Your task to perform on an android device: uninstall "Roku - Official Remote Control" Image 0: 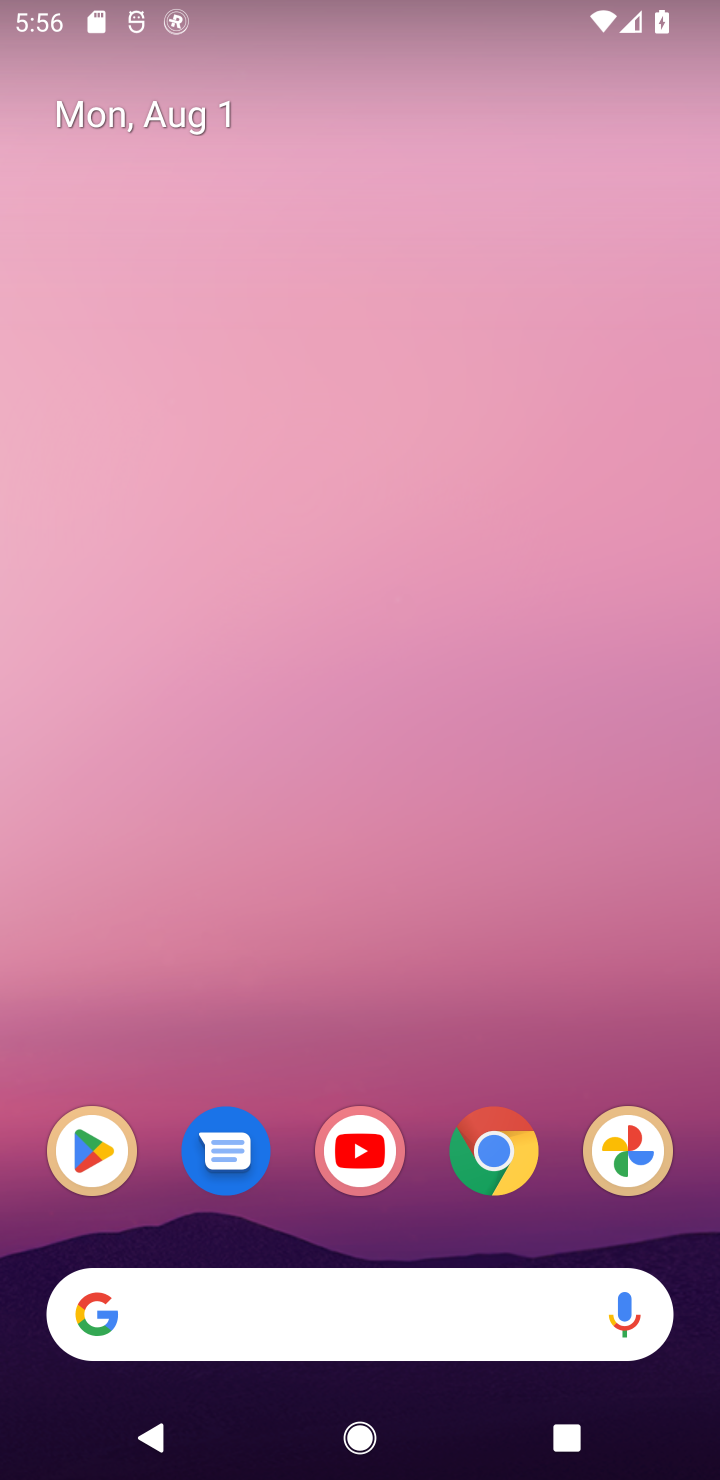
Step 0: click (115, 1179)
Your task to perform on an android device: uninstall "Roku - Official Remote Control" Image 1: 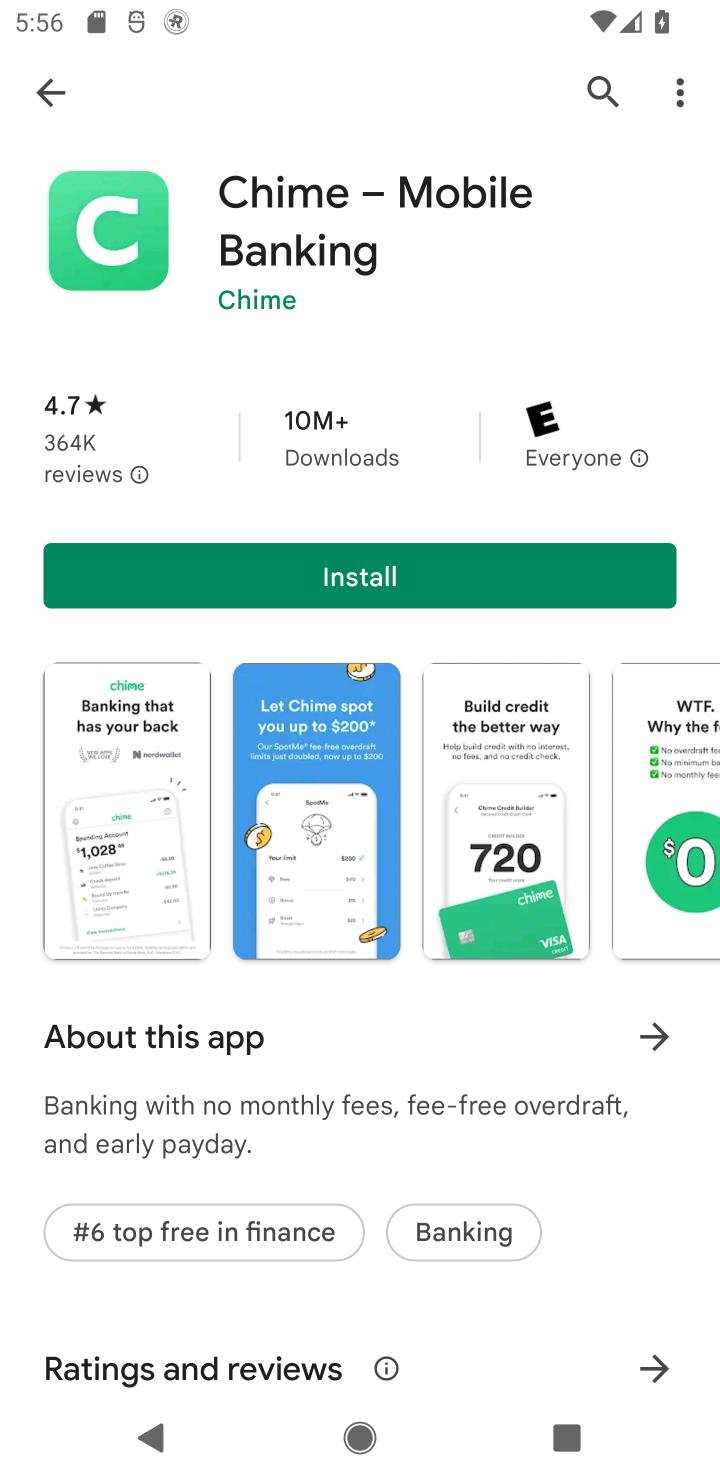
Step 1: click (594, 88)
Your task to perform on an android device: uninstall "Roku - Official Remote Control" Image 2: 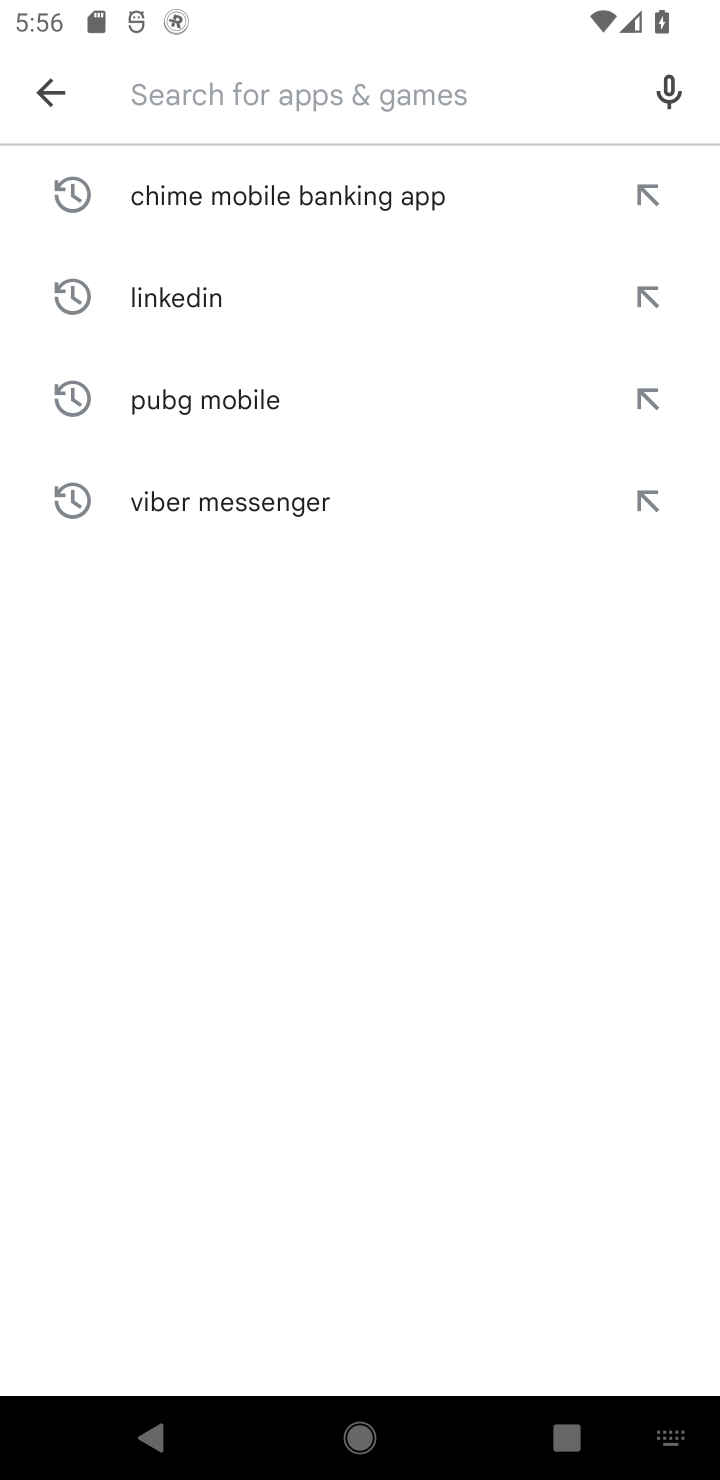
Step 2: type "Roku - Official Remote Control"
Your task to perform on an android device: uninstall "Roku - Official Remote Control" Image 3: 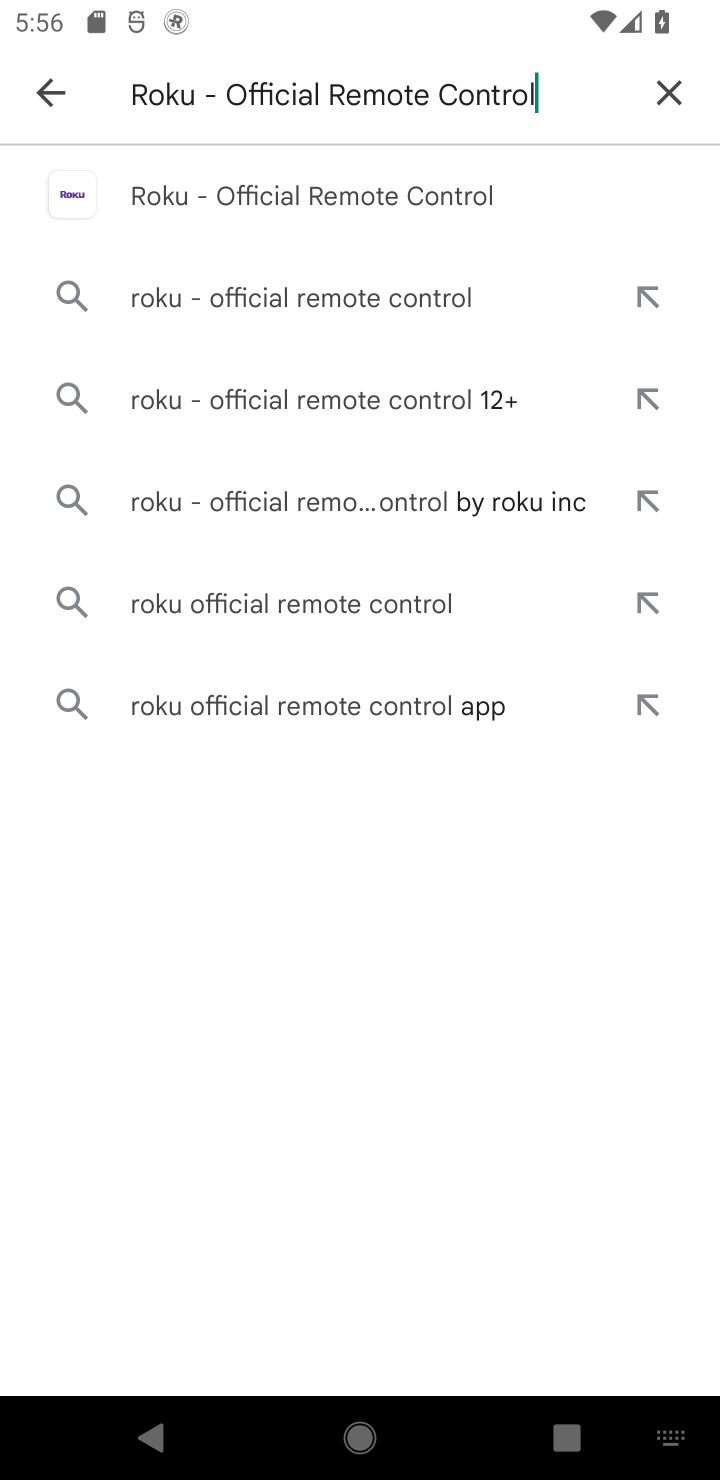
Step 3: click (243, 188)
Your task to perform on an android device: uninstall "Roku - Official Remote Control" Image 4: 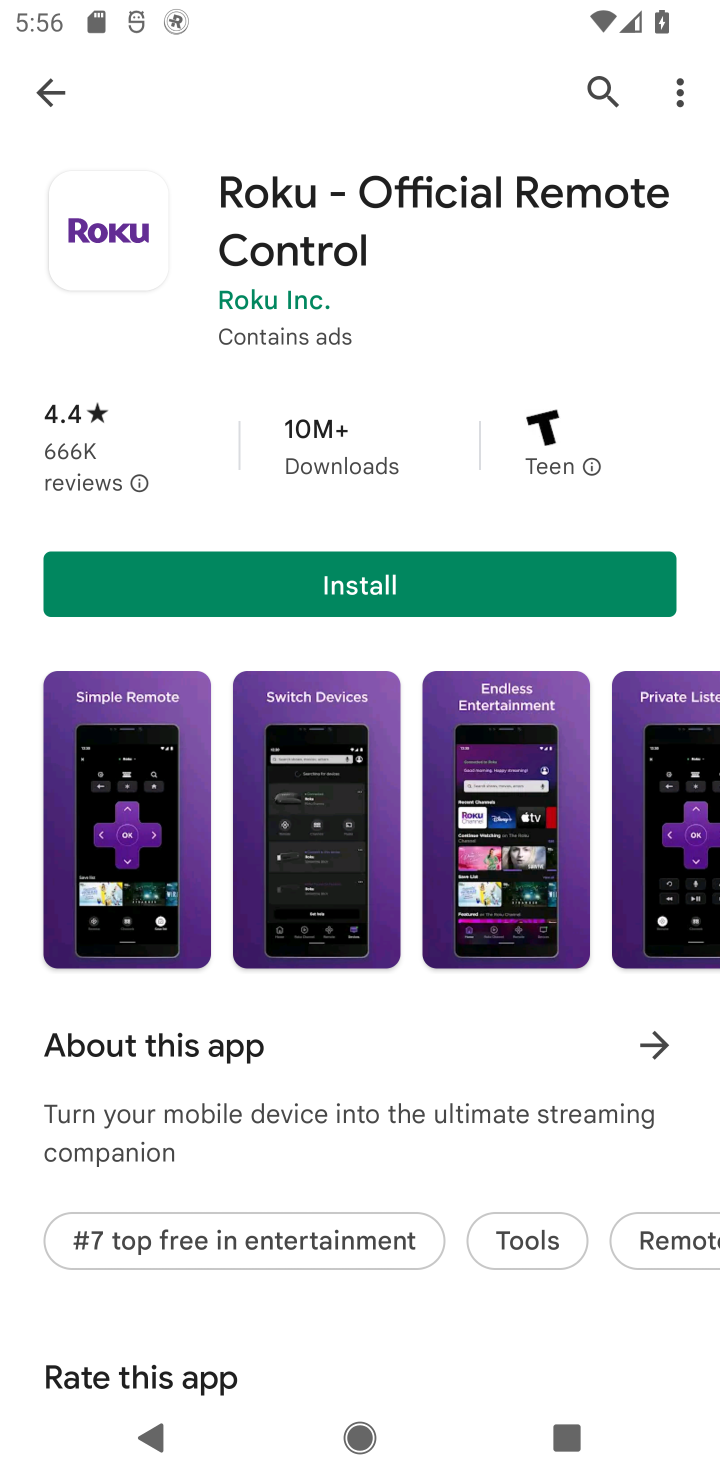
Step 4: task complete